Your task to perform on an android device: Open my contact list Image 0: 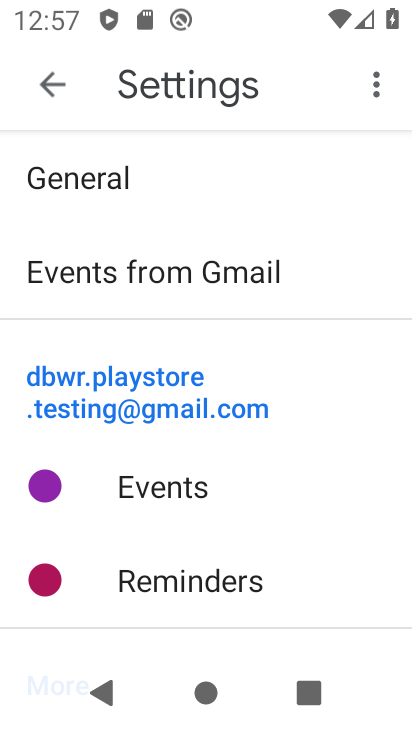
Step 0: press home button
Your task to perform on an android device: Open my contact list Image 1: 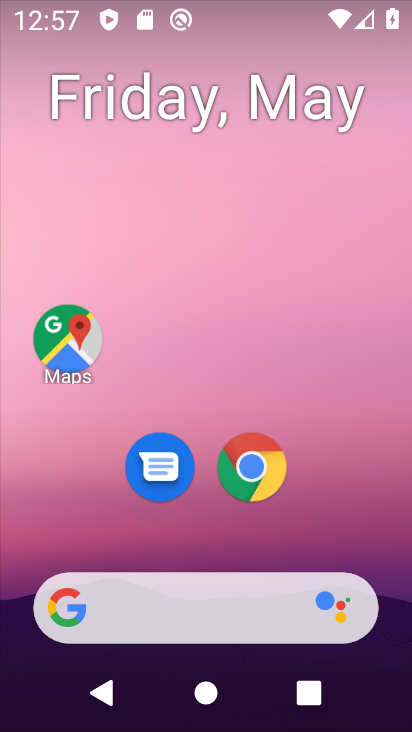
Step 1: drag from (287, 633) to (236, 185)
Your task to perform on an android device: Open my contact list Image 2: 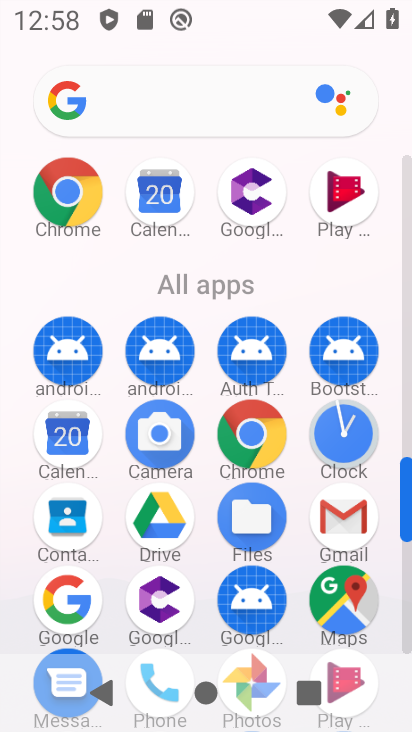
Step 2: drag from (210, 573) to (189, 487)
Your task to perform on an android device: Open my contact list Image 3: 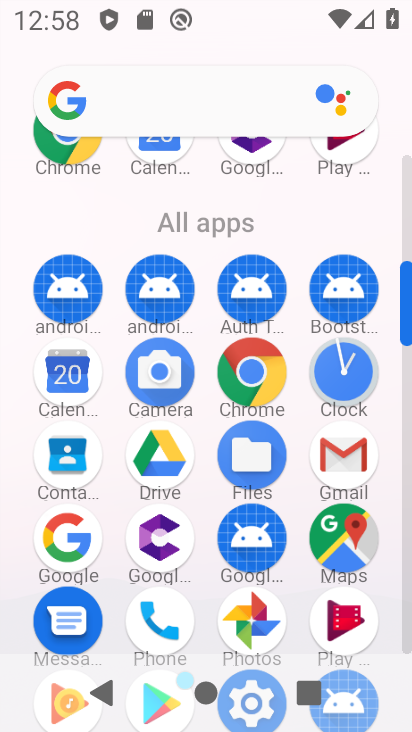
Step 3: click (155, 598)
Your task to perform on an android device: Open my contact list Image 4: 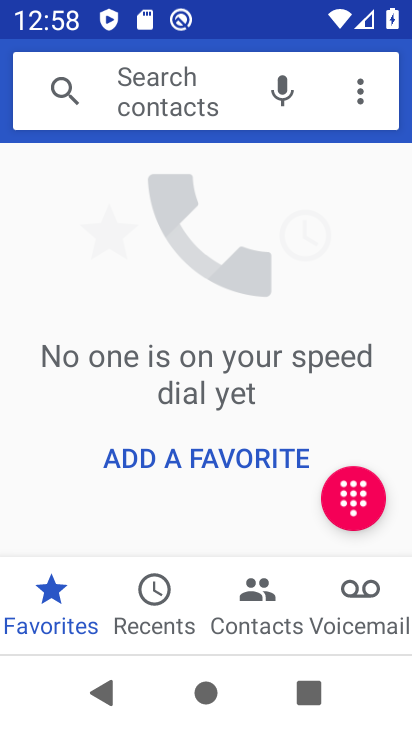
Step 4: click (270, 604)
Your task to perform on an android device: Open my contact list Image 5: 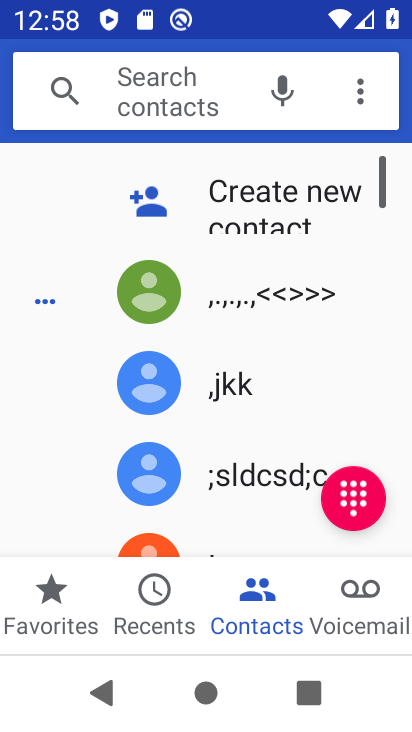
Step 5: task complete